Your task to perform on an android device: Open settings on Google Maps Image 0: 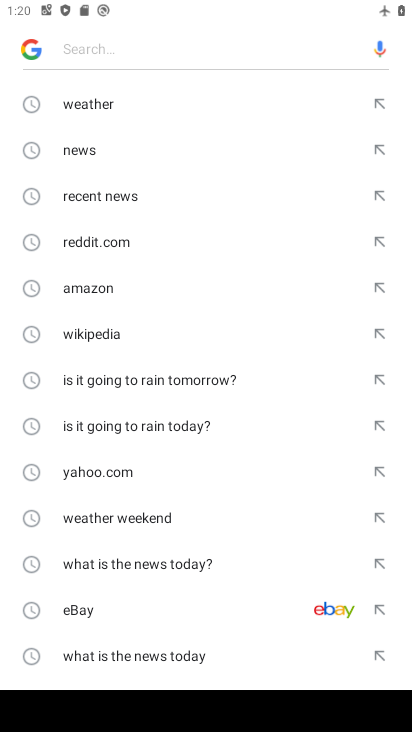
Step 0: press home button
Your task to perform on an android device: Open settings on Google Maps Image 1: 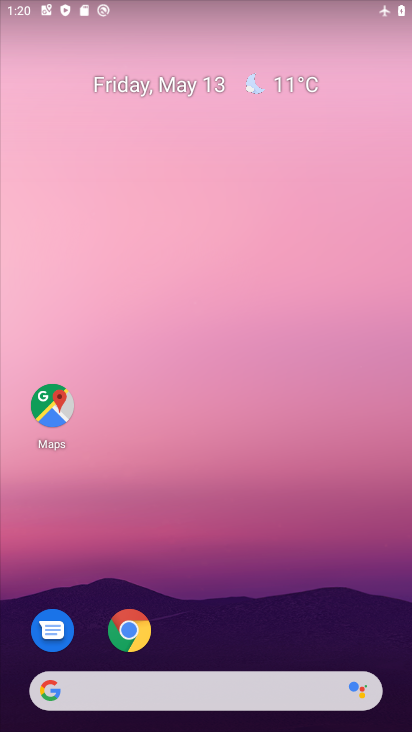
Step 1: click (54, 405)
Your task to perform on an android device: Open settings on Google Maps Image 2: 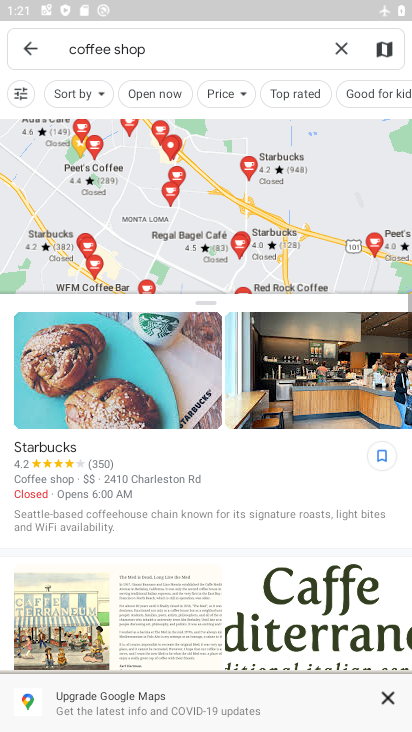
Step 2: click (343, 41)
Your task to perform on an android device: Open settings on Google Maps Image 3: 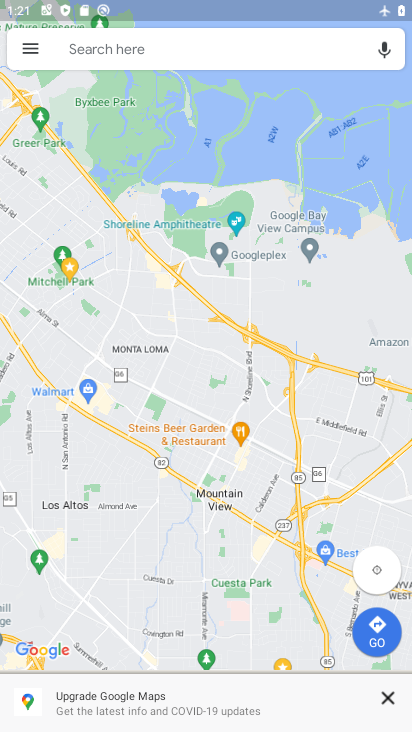
Step 3: click (29, 50)
Your task to perform on an android device: Open settings on Google Maps Image 4: 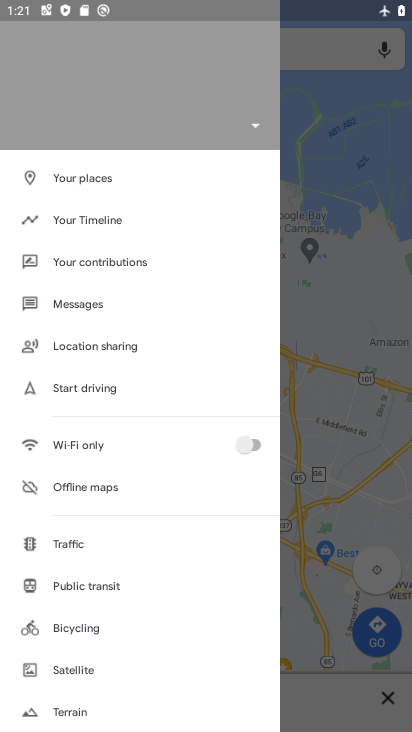
Step 4: drag from (155, 655) to (176, 354)
Your task to perform on an android device: Open settings on Google Maps Image 5: 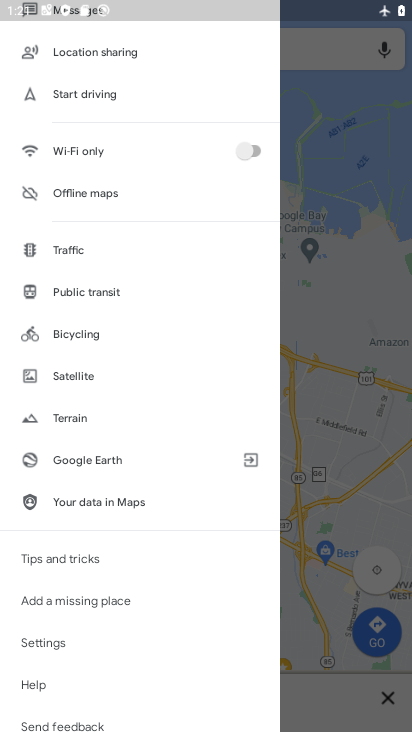
Step 5: click (47, 641)
Your task to perform on an android device: Open settings on Google Maps Image 6: 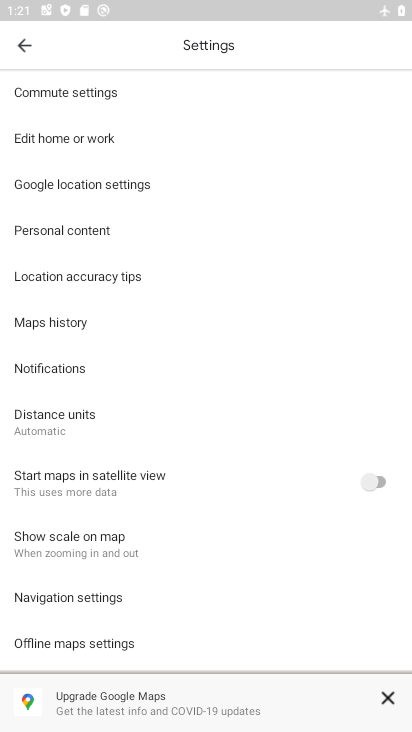
Step 6: task complete